Your task to perform on an android device: Open sound settings Image 0: 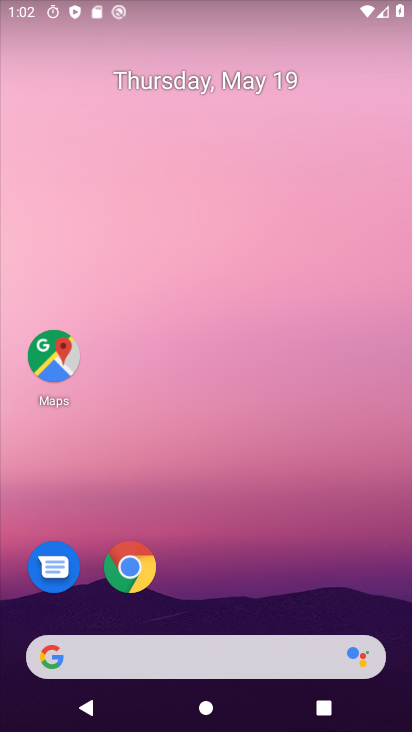
Step 0: press home button
Your task to perform on an android device: Open sound settings Image 1: 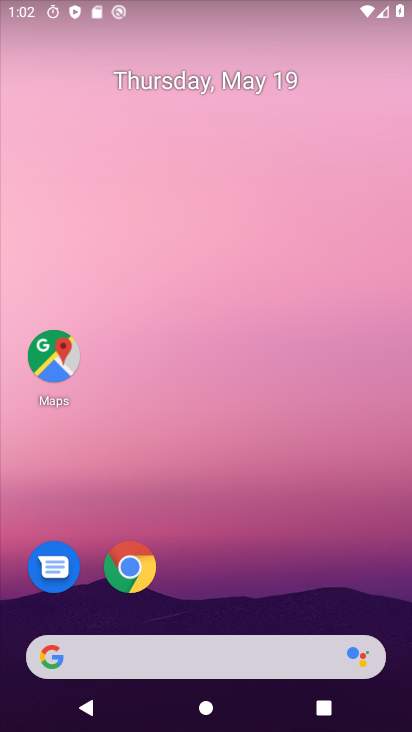
Step 1: drag from (179, 652) to (330, 355)
Your task to perform on an android device: Open sound settings Image 2: 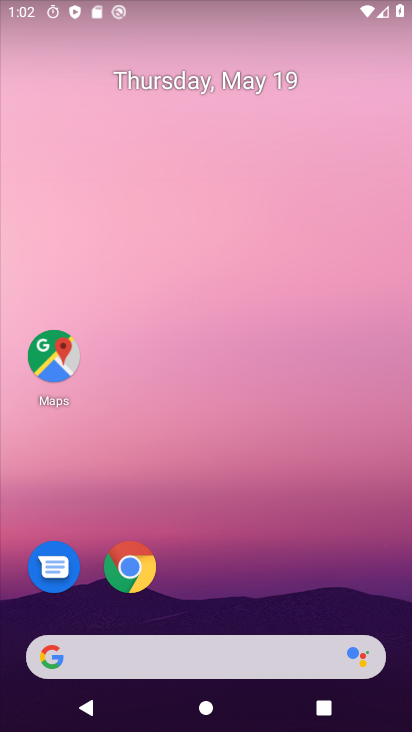
Step 2: drag from (182, 659) to (325, 267)
Your task to perform on an android device: Open sound settings Image 3: 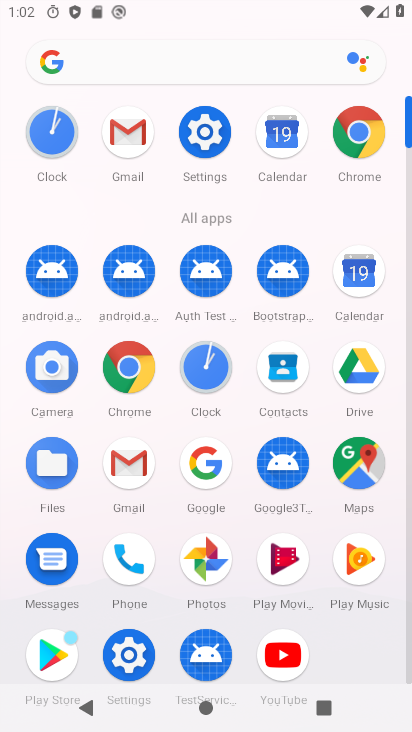
Step 3: click (206, 140)
Your task to perform on an android device: Open sound settings Image 4: 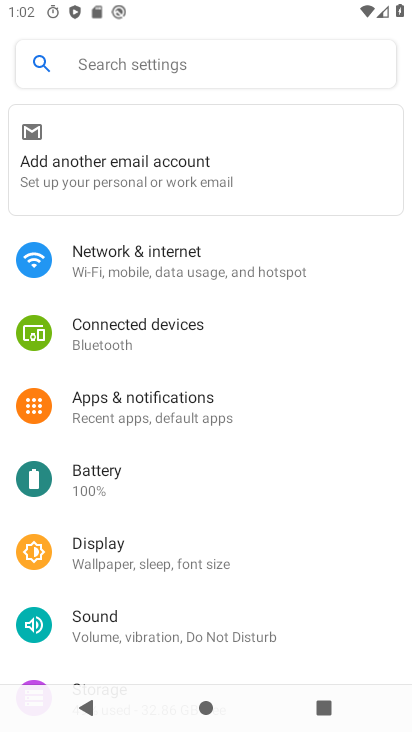
Step 4: click (132, 627)
Your task to perform on an android device: Open sound settings Image 5: 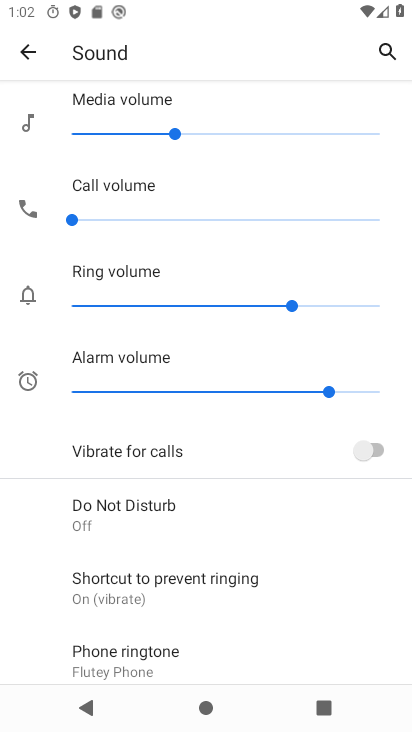
Step 5: task complete